Your task to perform on an android device: Open maps Image 0: 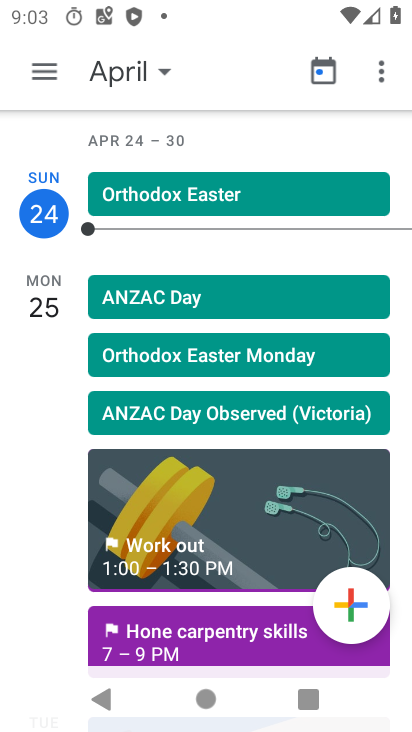
Step 0: press home button
Your task to perform on an android device: Open maps Image 1: 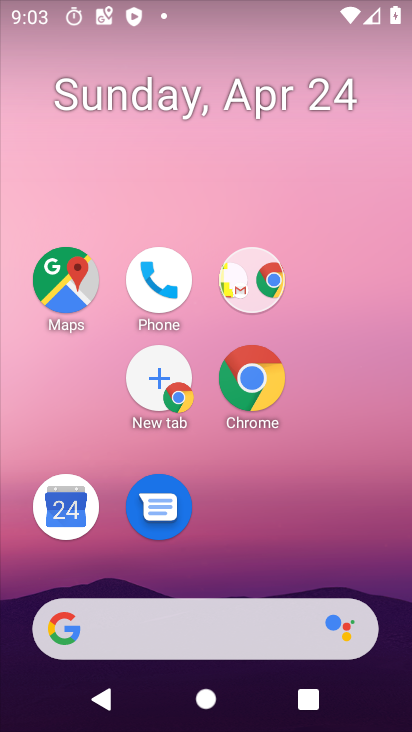
Step 1: drag from (243, 596) to (207, 54)
Your task to perform on an android device: Open maps Image 2: 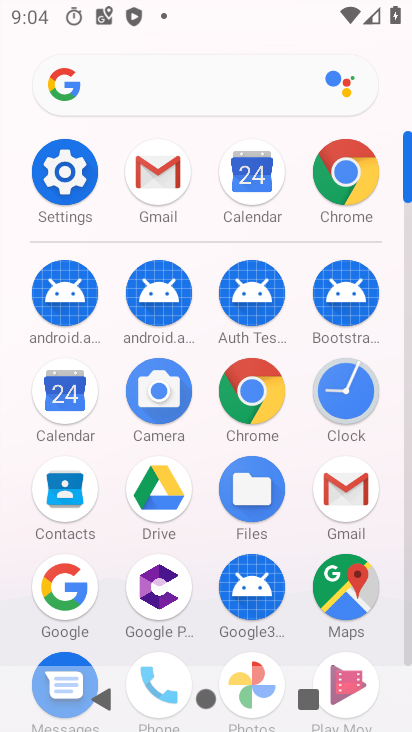
Step 2: click (339, 591)
Your task to perform on an android device: Open maps Image 3: 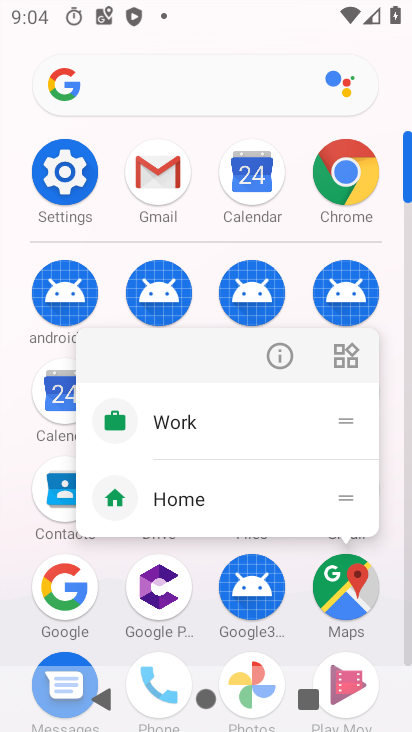
Step 3: click (334, 583)
Your task to perform on an android device: Open maps Image 4: 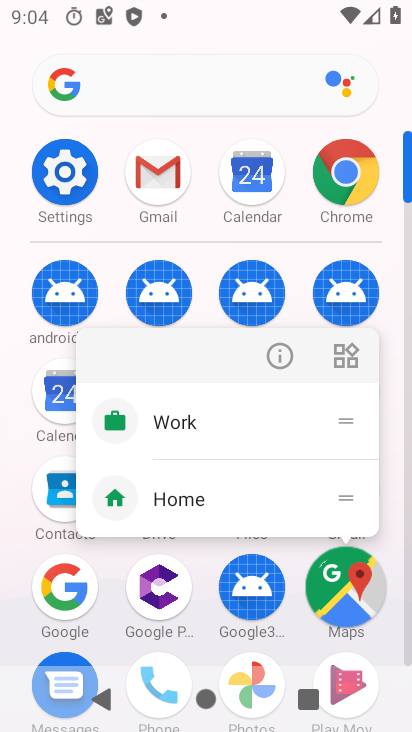
Step 4: click (334, 582)
Your task to perform on an android device: Open maps Image 5: 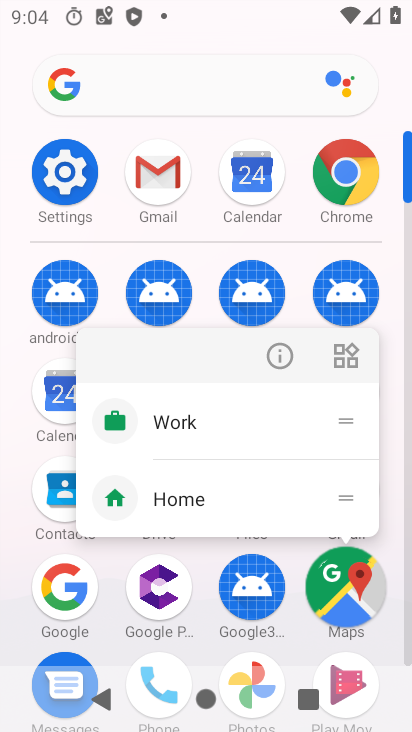
Step 5: click (334, 582)
Your task to perform on an android device: Open maps Image 6: 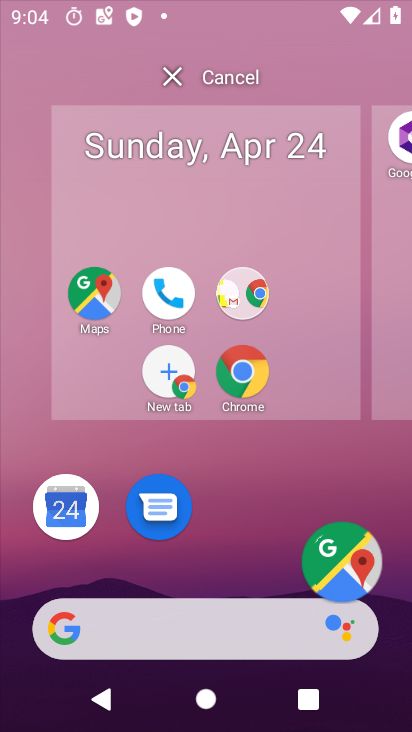
Step 6: click (332, 568)
Your task to perform on an android device: Open maps Image 7: 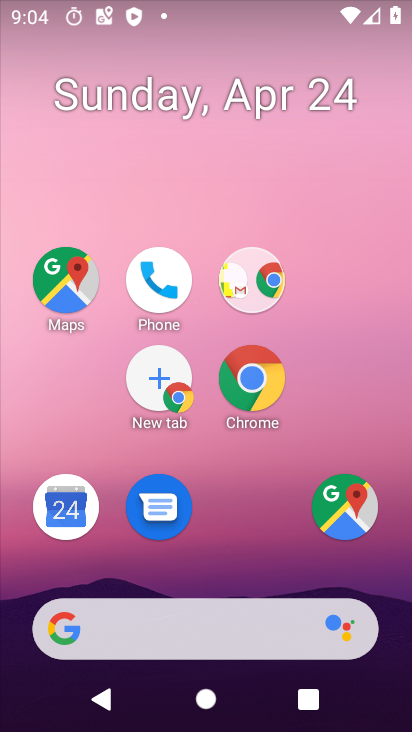
Step 7: click (349, 496)
Your task to perform on an android device: Open maps Image 8: 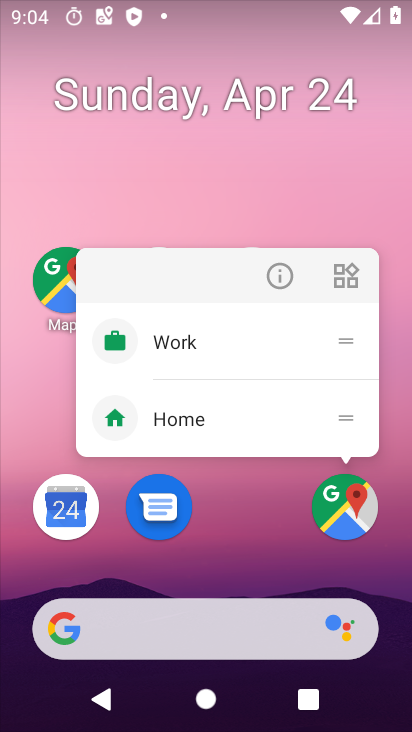
Step 8: click (349, 495)
Your task to perform on an android device: Open maps Image 9: 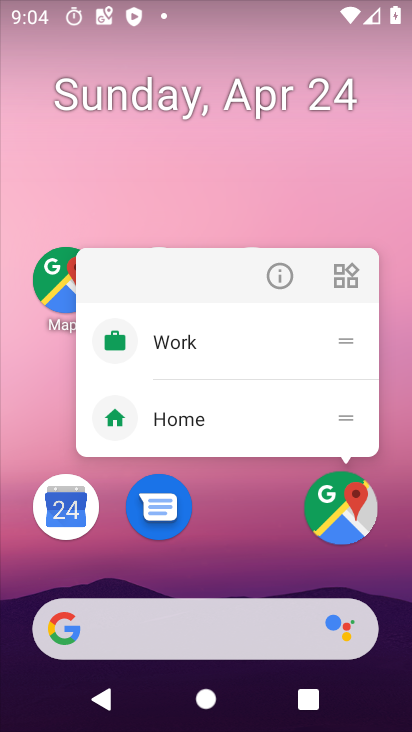
Step 9: drag from (356, 541) to (369, 584)
Your task to perform on an android device: Open maps Image 10: 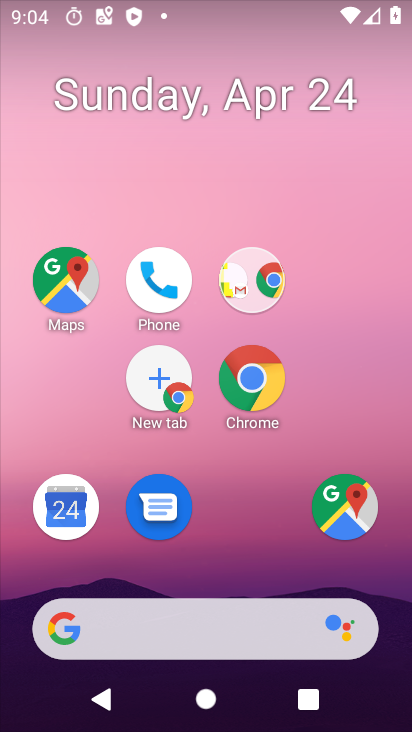
Step 10: click (342, 513)
Your task to perform on an android device: Open maps Image 11: 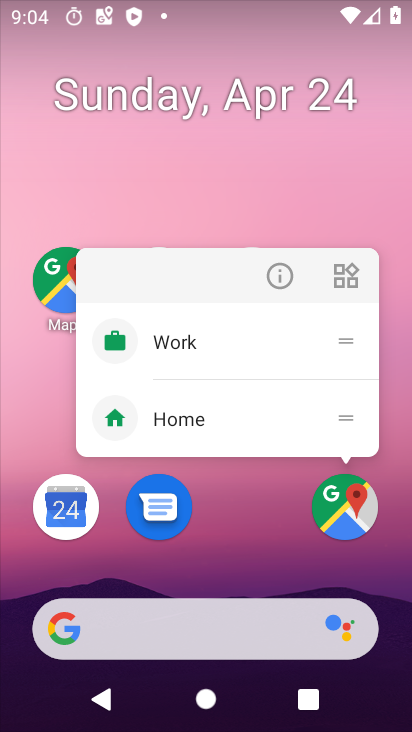
Step 11: click (343, 512)
Your task to perform on an android device: Open maps Image 12: 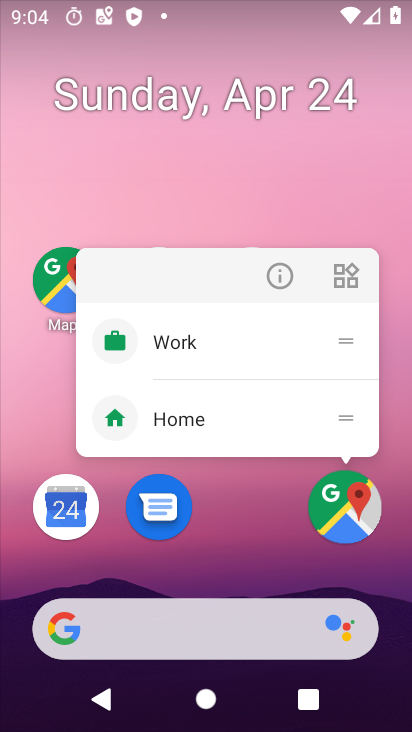
Step 12: click (343, 512)
Your task to perform on an android device: Open maps Image 13: 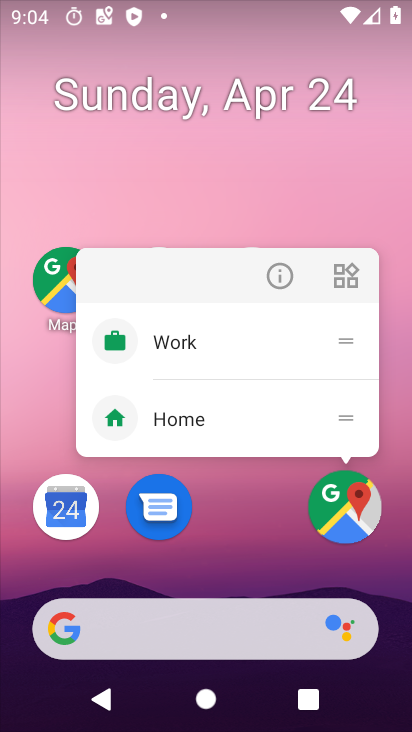
Step 13: click (343, 512)
Your task to perform on an android device: Open maps Image 14: 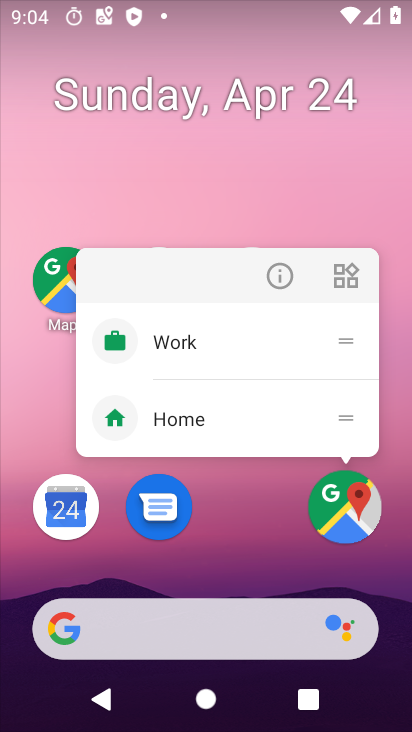
Step 14: click (343, 512)
Your task to perform on an android device: Open maps Image 15: 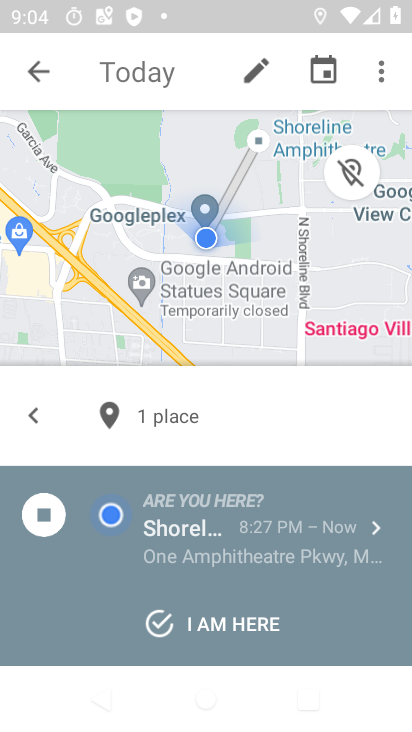
Step 15: click (36, 74)
Your task to perform on an android device: Open maps Image 16: 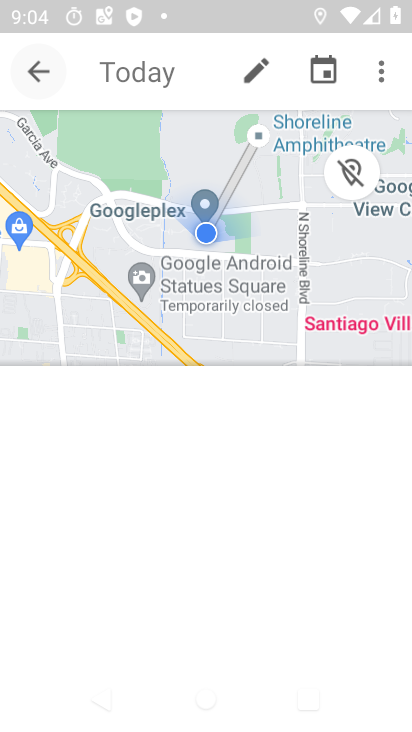
Step 16: task complete